Your task to perform on an android device: Open eBay Image 0: 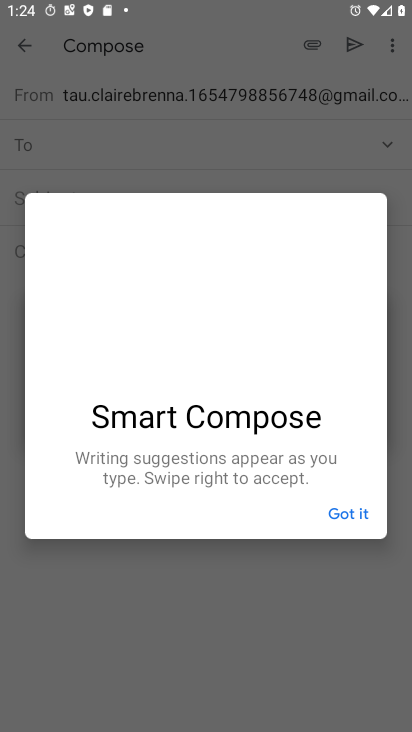
Step 0: press home button
Your task to perform on an android device: Open eBay Image 1: 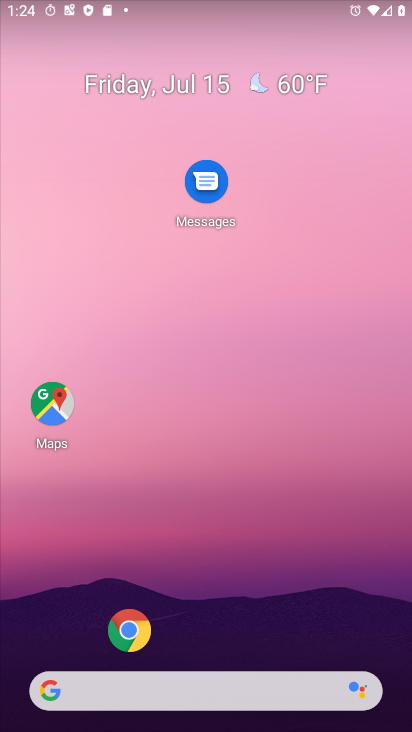
Step 1: drag from (152, 341) to (285, 33)
Your task to perform on an android device: Open eBay Image 2: 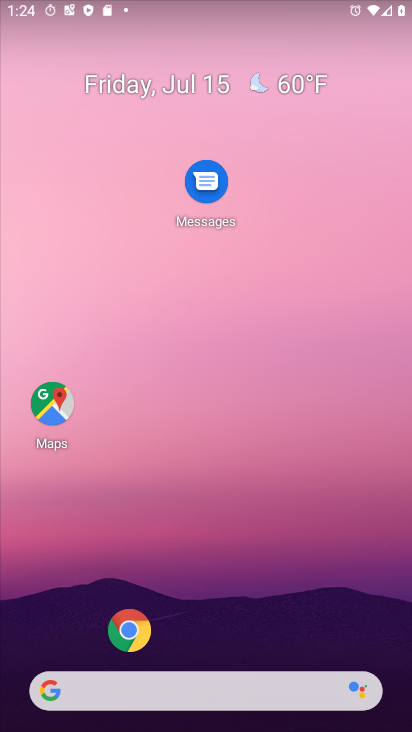
Step 2: click (123, 690)
Your task to perform on an android device: Open eBay Image 3: 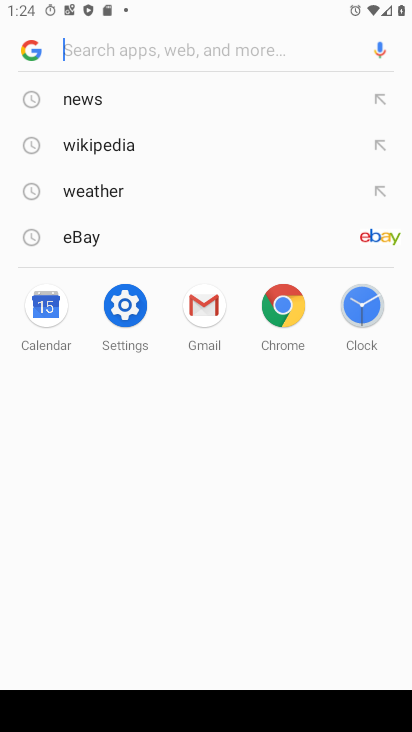
Step 3: click (79, 245)
Your task to perform on an android device: Open eBay Image 4: 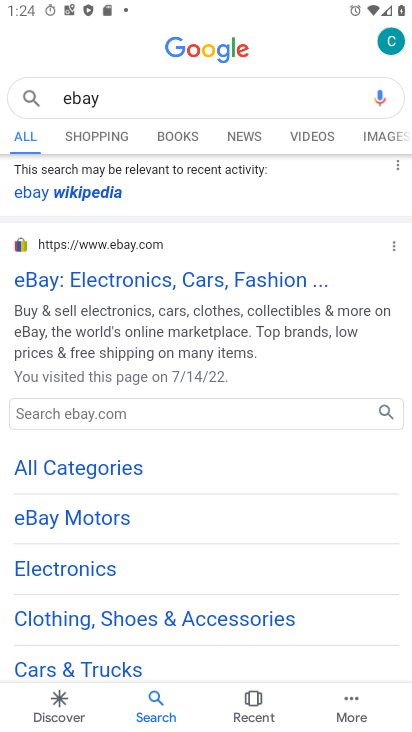
Step 4: task complete